Your task to perform on an android device: Go to CNN.com Image 0: 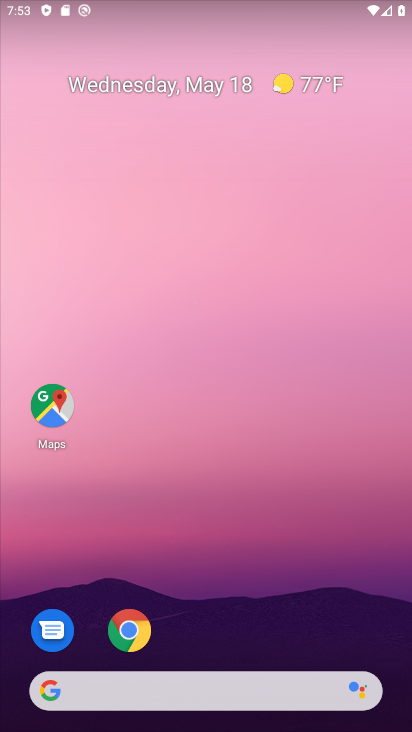
Step 0: click (121, 637)
Your task to perform on an android device: Go to CNN.com Image 1: 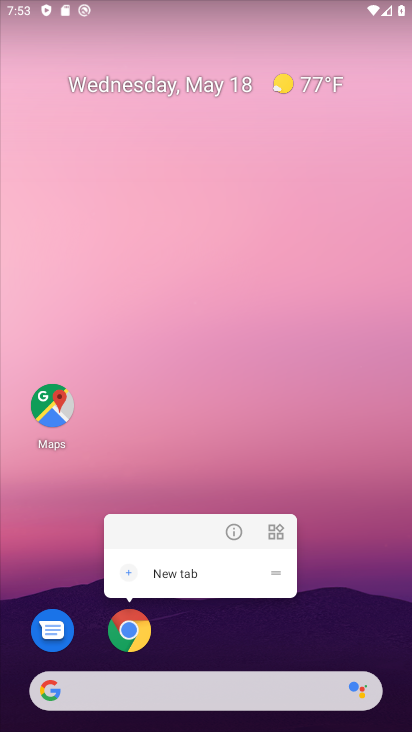
Step 1: click (139, 642)
Your task to perform on an android device: Go to CNN.com Image 2: 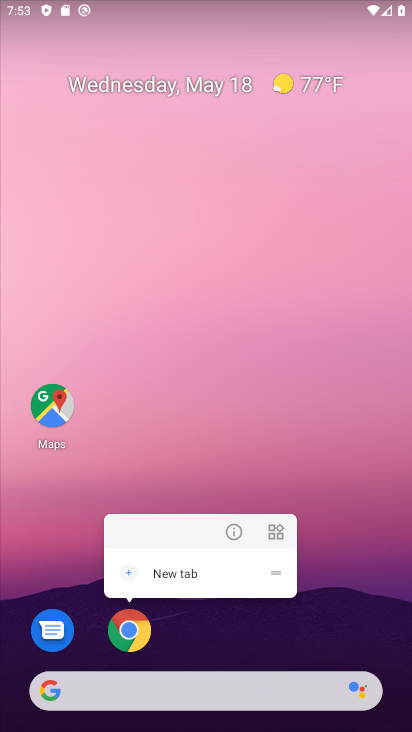
Step 2: click (139, 642)
Your task to perform on an android device: Go to CNN.com Image 3: 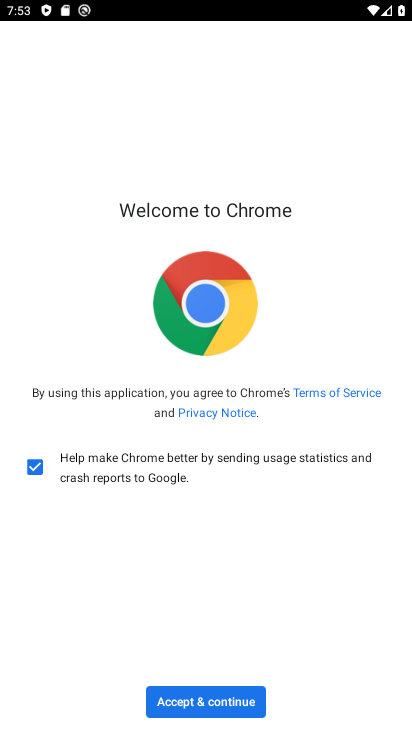
Step 3: click (233, 710)
Your task to perform on an android device: Go to CNN.com Image 4: 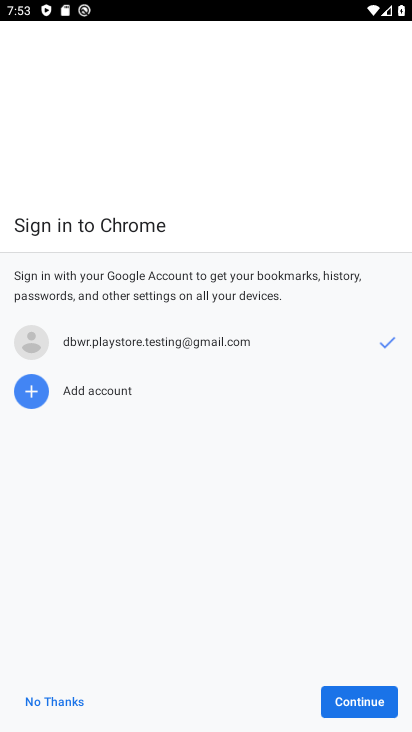
Step 4: click (387, 701)
Your task to perform on an android device: Go to CNN.com Image 5: 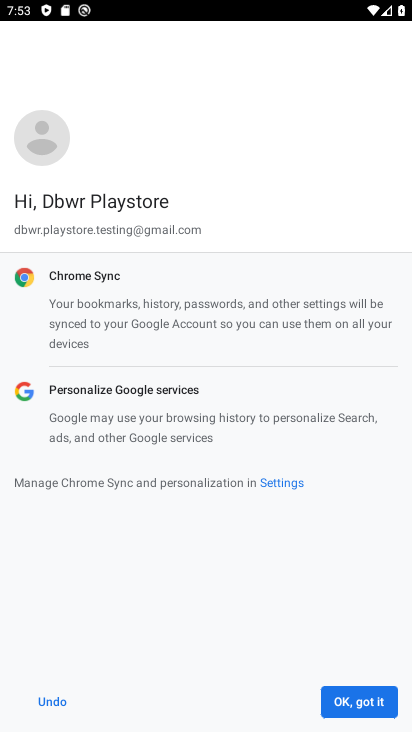
Step 5: click (378, 709)
Your task to perform on an android device: Go to CNN.com Image 6: 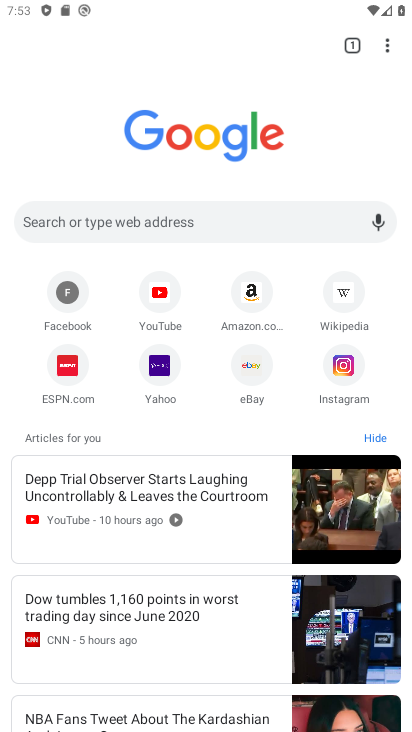
Step 6: click (213, 216)
Your task to perform on an android device: Go to CNN.com Image 7: 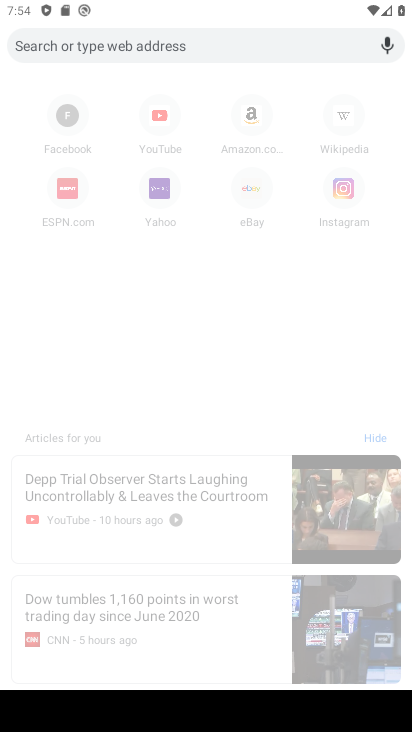
Step 7: type "CNN.com"
Your task to perform on an android device: Go to CNN.com Image 8: 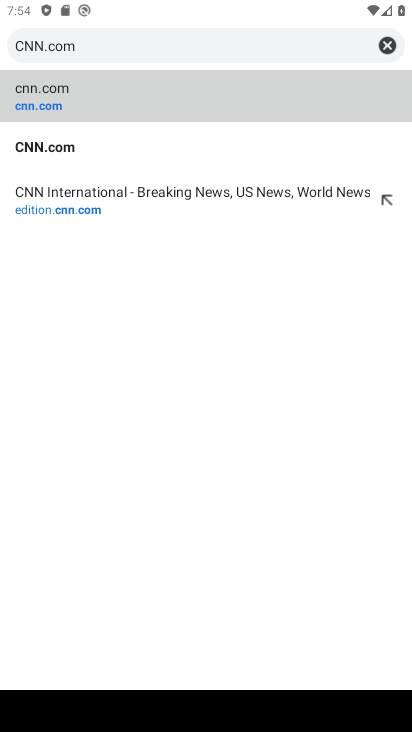
Step 8: click (33, 101)
Your task to perform on an android device: Go to CNN.com Image 9: 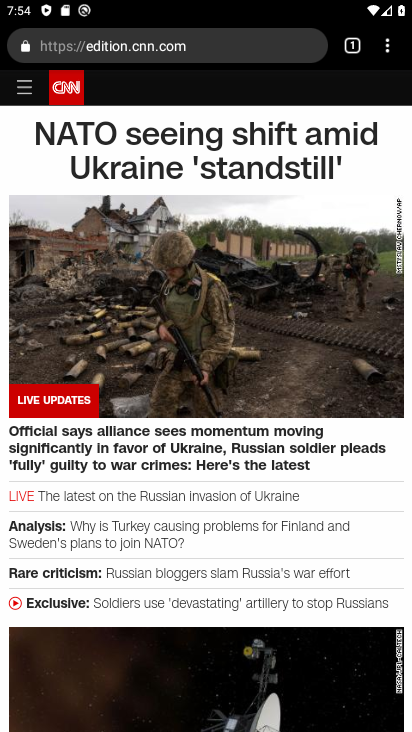
Step 9: task complete